Your task to perform on an android device: Go to sound settings Image 0: 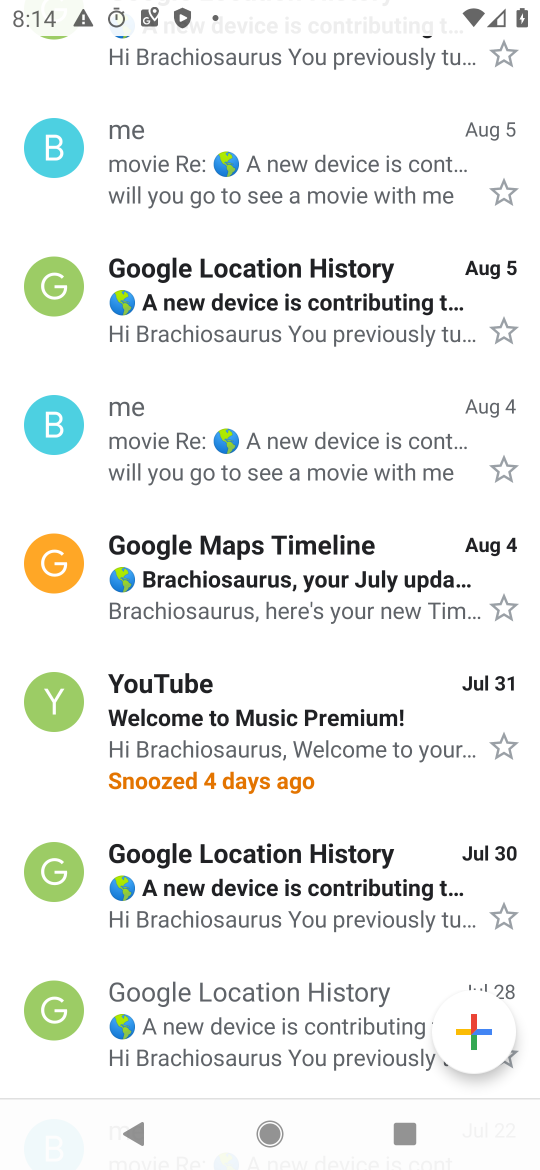
Step 0: press home button
Your task to perform on an android device: Go to sound settings Image 1: 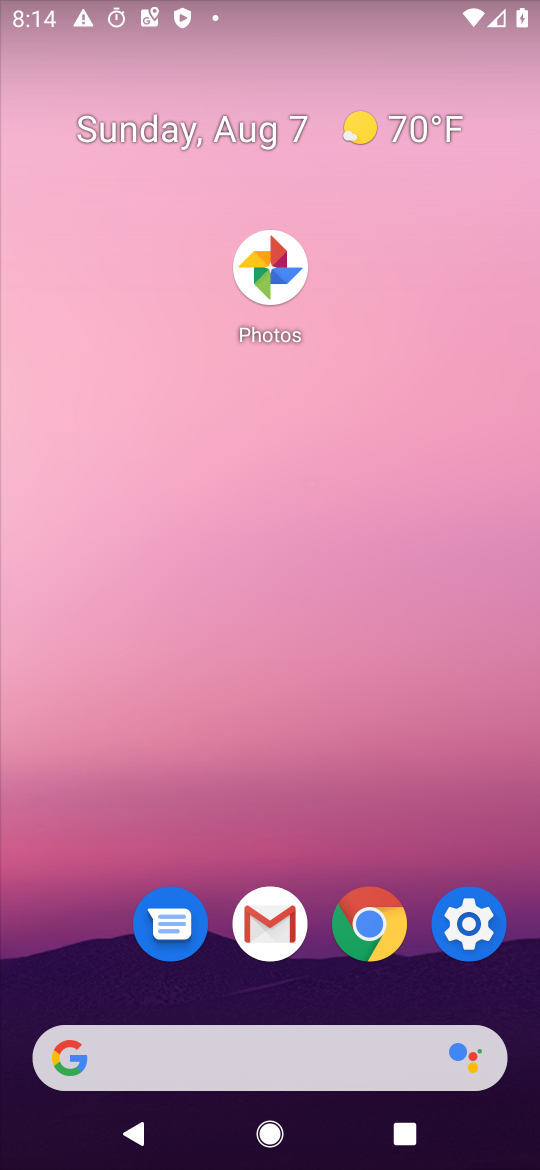
Step 1: drag from (351, 1040) to (330, 370)
Your task to perform on an android device: Go to sound settings Image 2: 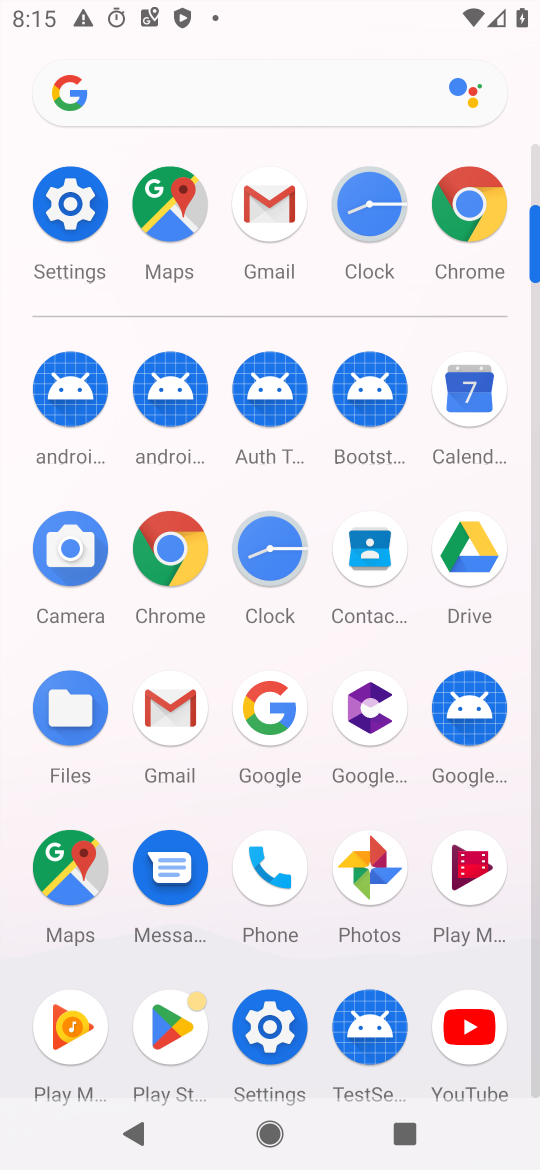
Step 2: drag from (280, 325) to (89, 203)
Your task to perform on an android device: Go to sound settings Image 3: 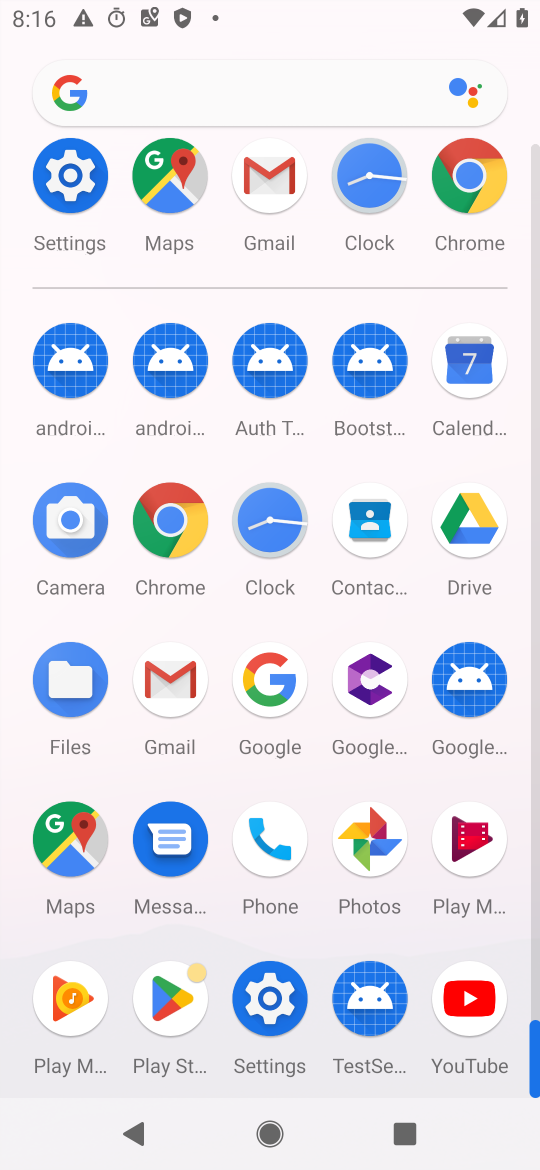
Step 3: click (69, 194)
Your task to perform on an android device: Go to sound settings Image 4: 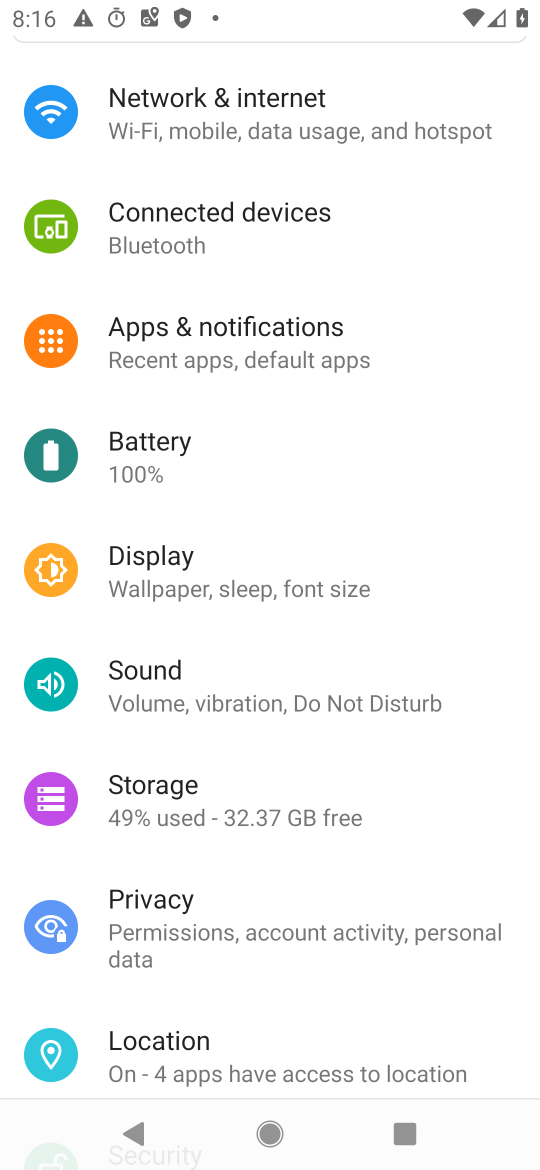
Step 4: click (173, 698)
Your task to perform on an android device: Go to sound settings Image 5: 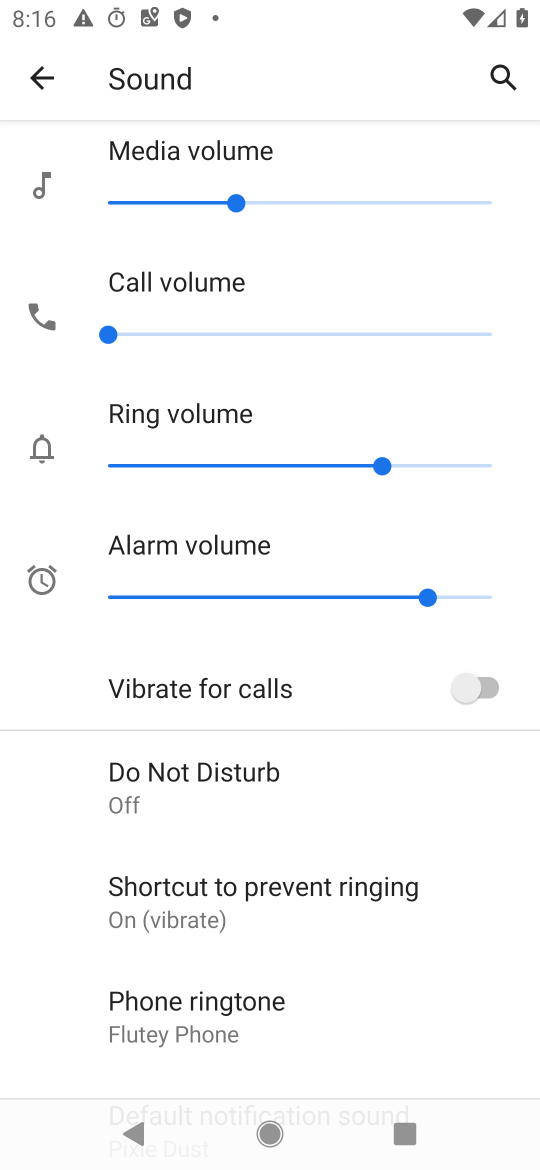
Step 5: task complete